Your task to perform on an android device: manage bookmarks in the chrome app Image 0: 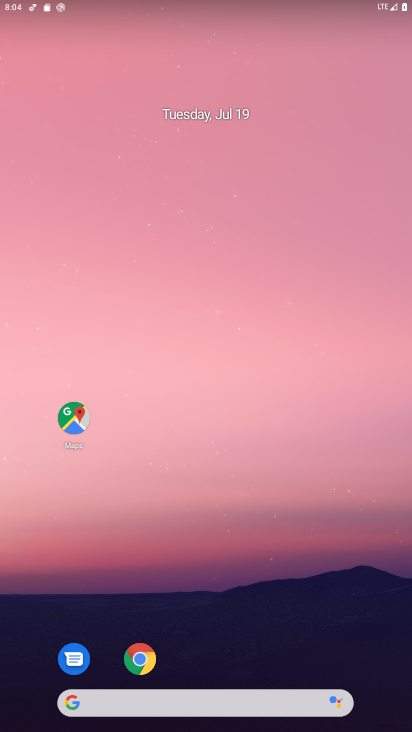
Step 0: drag from (199, 653) to (181, 14)
Your task to perform on an android device: manage bookmarks in the chrome app Image 1: 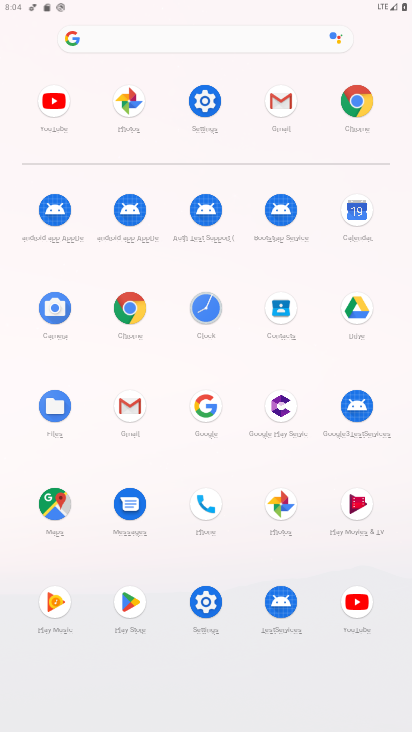
Step 1: click (132, 312)
Your task to perform on an android device: manage bookmarks in the chrome app Image 2: 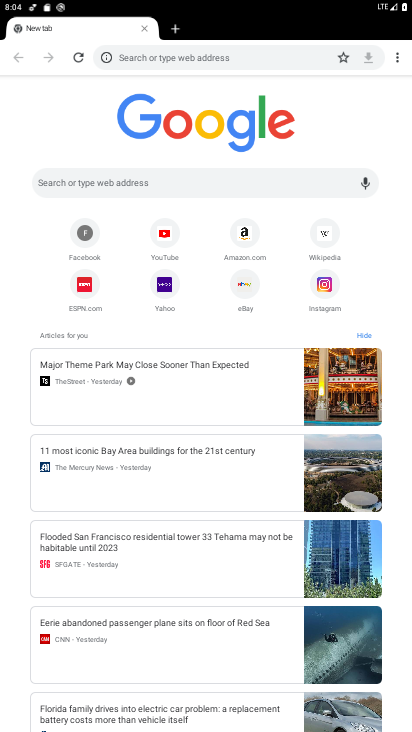
Step 2: click (397, 56)
Your task to perform on an android device: manage bookmarks in the chrome app Image 3: 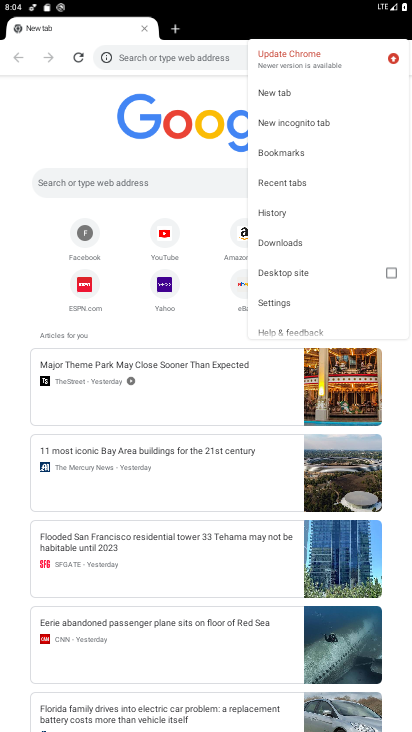
Step 3: click (281, 159)
Your task to perform on an android device: manage bookmarks in the chrome app Image 4: 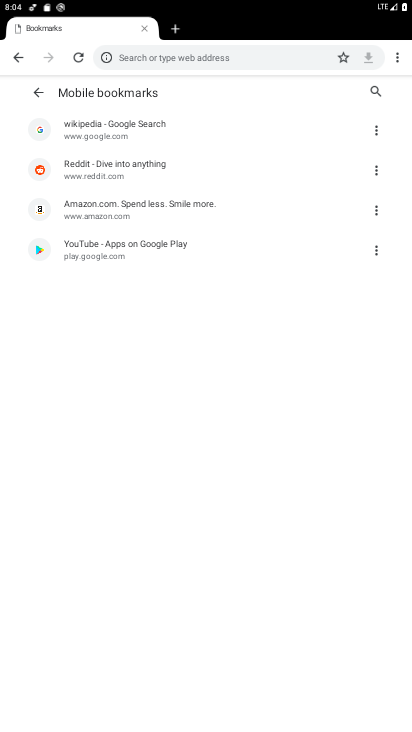
Step 4: click (374, 128)
Your task to perform on an android device: manage bookmarks in the chrome app Image 5: 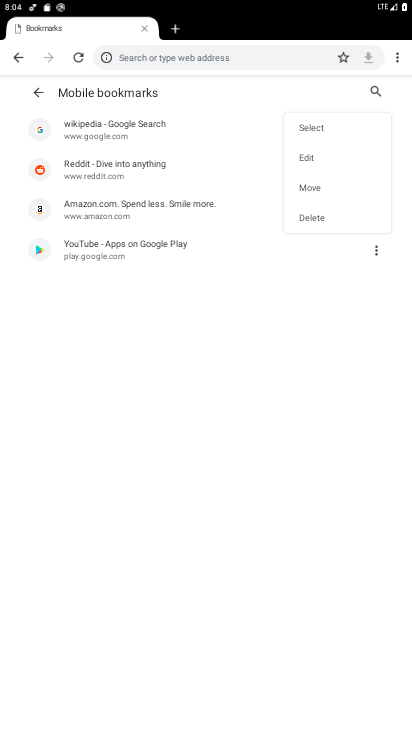
Step 5: click (312, 128)
Your task to perform on an android device: manage bookmarks in the chrome app Image 6: 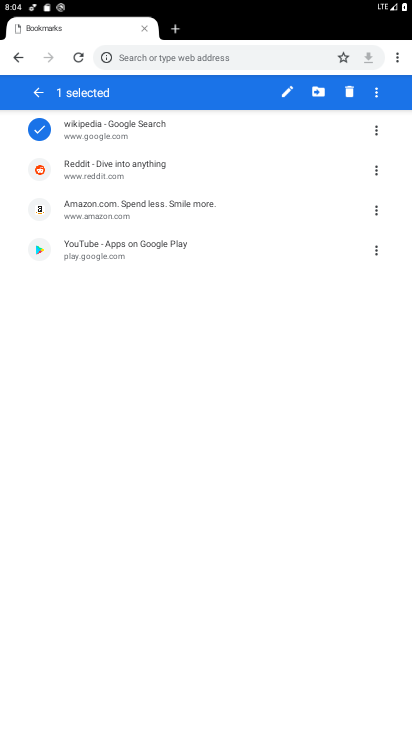
Step 6: click (136, 172)
Your task to perform on an android device: manage bookmarks in the chrome app Image 7: 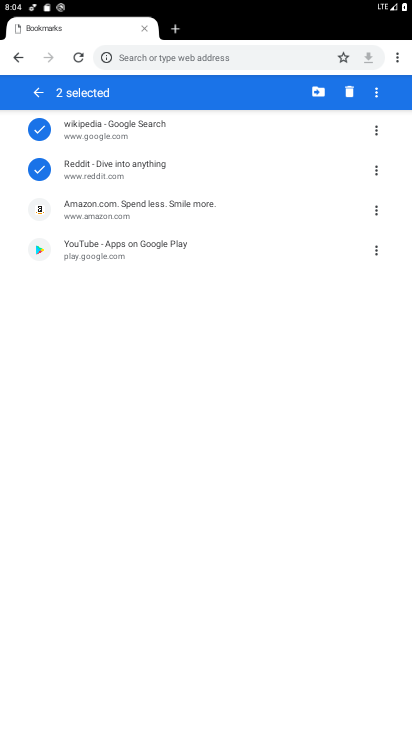
Step 7: click (130, 216)
Your task to perform on an android device: manage bookmarks in the chrome app Image 8: 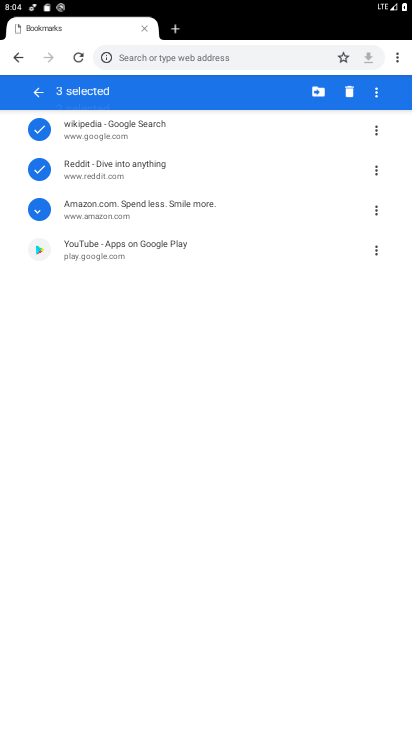
Step 8: click (111, 243)
Your task to perform on an android device: manage bookmarks in the chrome app Image 9: 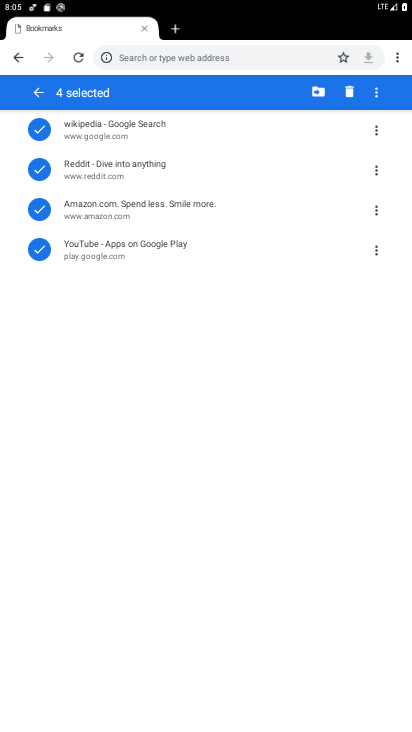
Step 9: click (316, 93)
Your task to perform on an android device: manage bookmarks in the chrome app Image 10: 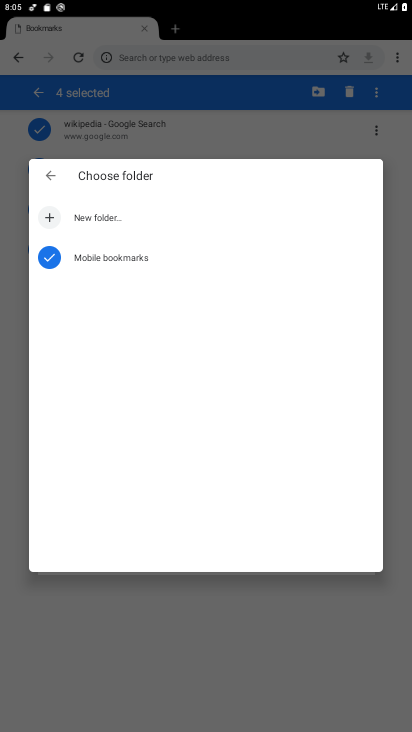
Step 10: click (99, 221)
Your task to perform on an android device: manage bookmarks in the chrome app Image 11: 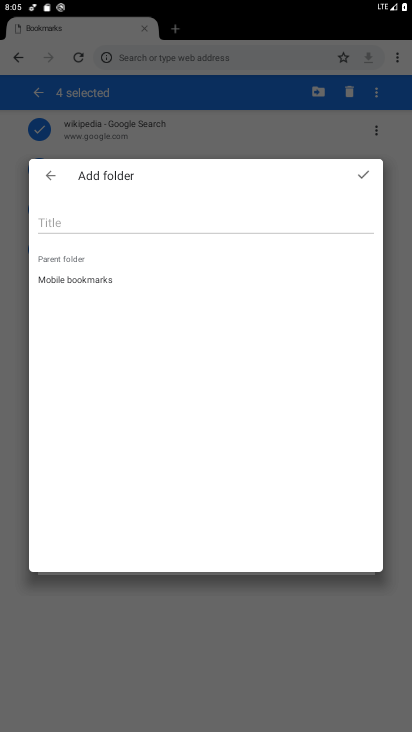
Step 11: click (97, 225)
Your task to perform on an android device: manage bookmarks in the chrome app Image 12: 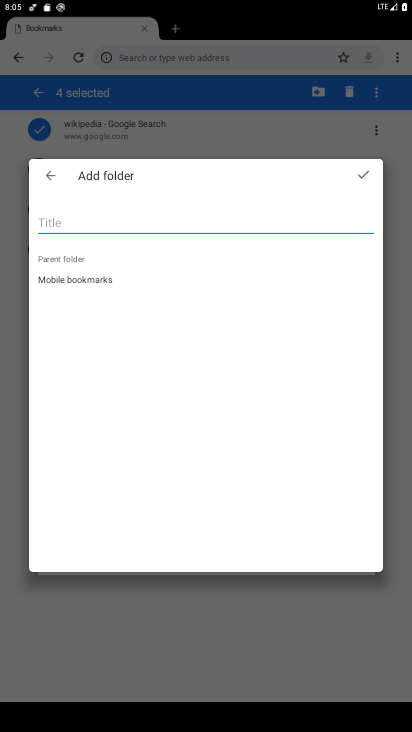
Step 12: type "bean"
Your task to perform on an android device: manage bookmarks in the chrome app Image 13: 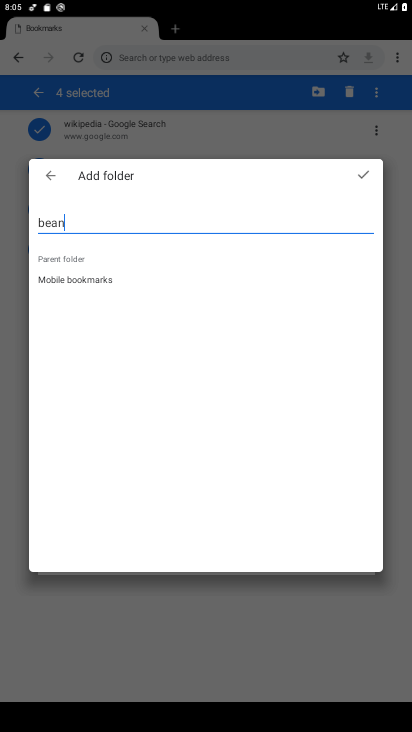
Step 13: click (373, 174)
Your task to perform on an android device: manage bookmarks in the chrome app Image 14: 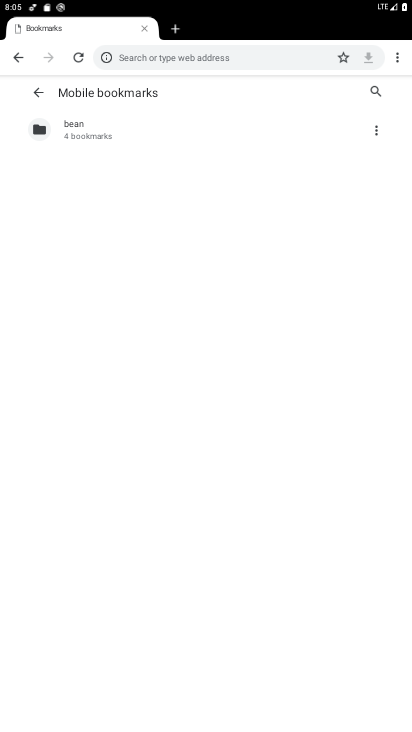
Step 14: task complete